Your task to perform on an android device: toggle translation in the chrome app Image 0: 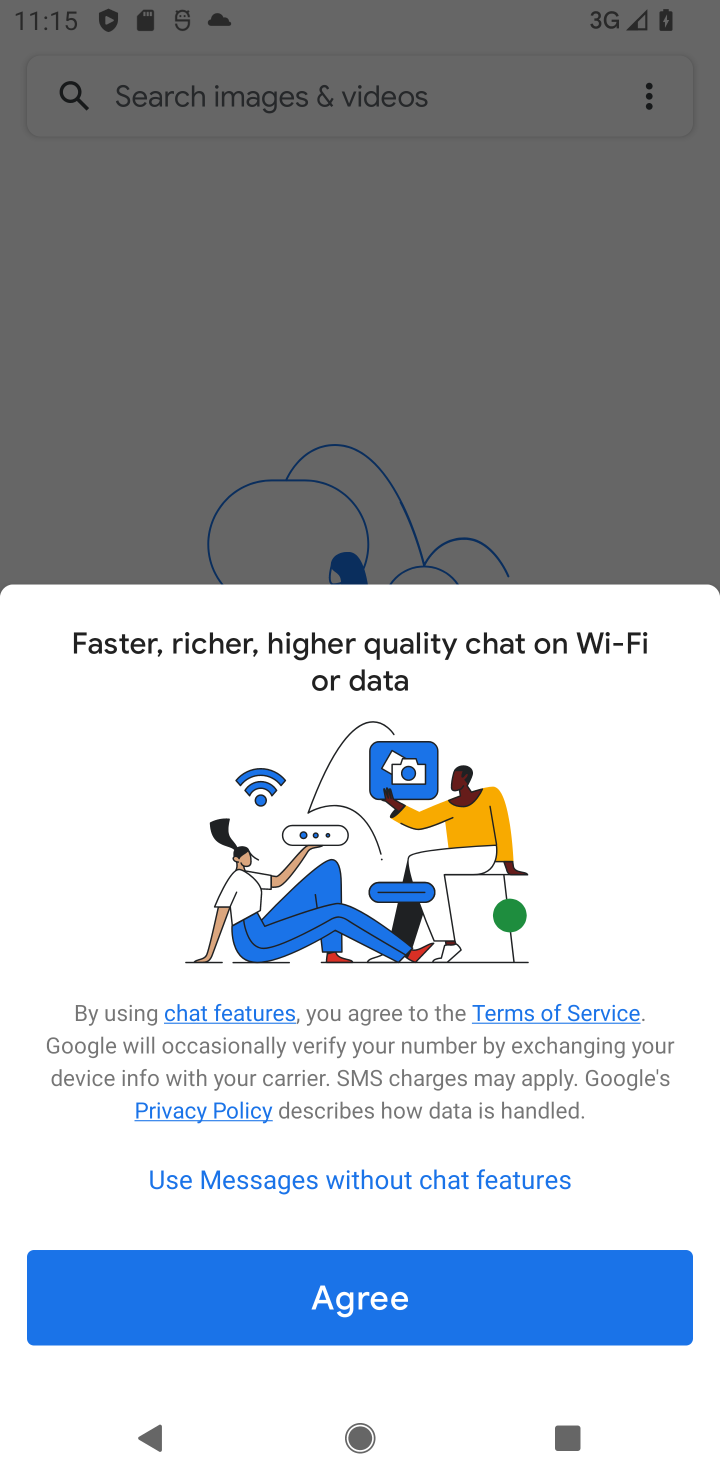
Step 0: press home button
Your task to perform on an android device: toggle translation in the chrome app Image 1: 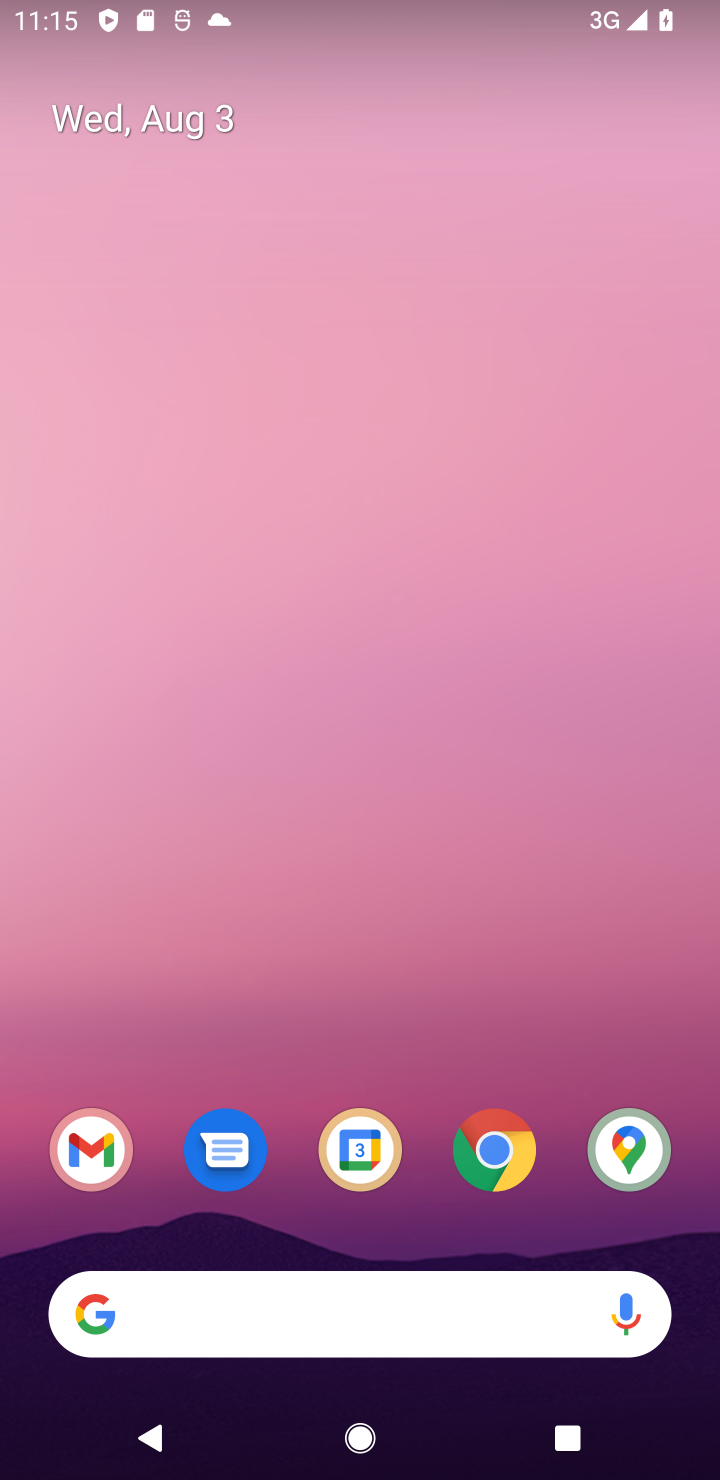
Step 1: drag from (557, 999) to (557, 331)
Your task to perform on an android device: toggle translation in the chrome app Image 2: 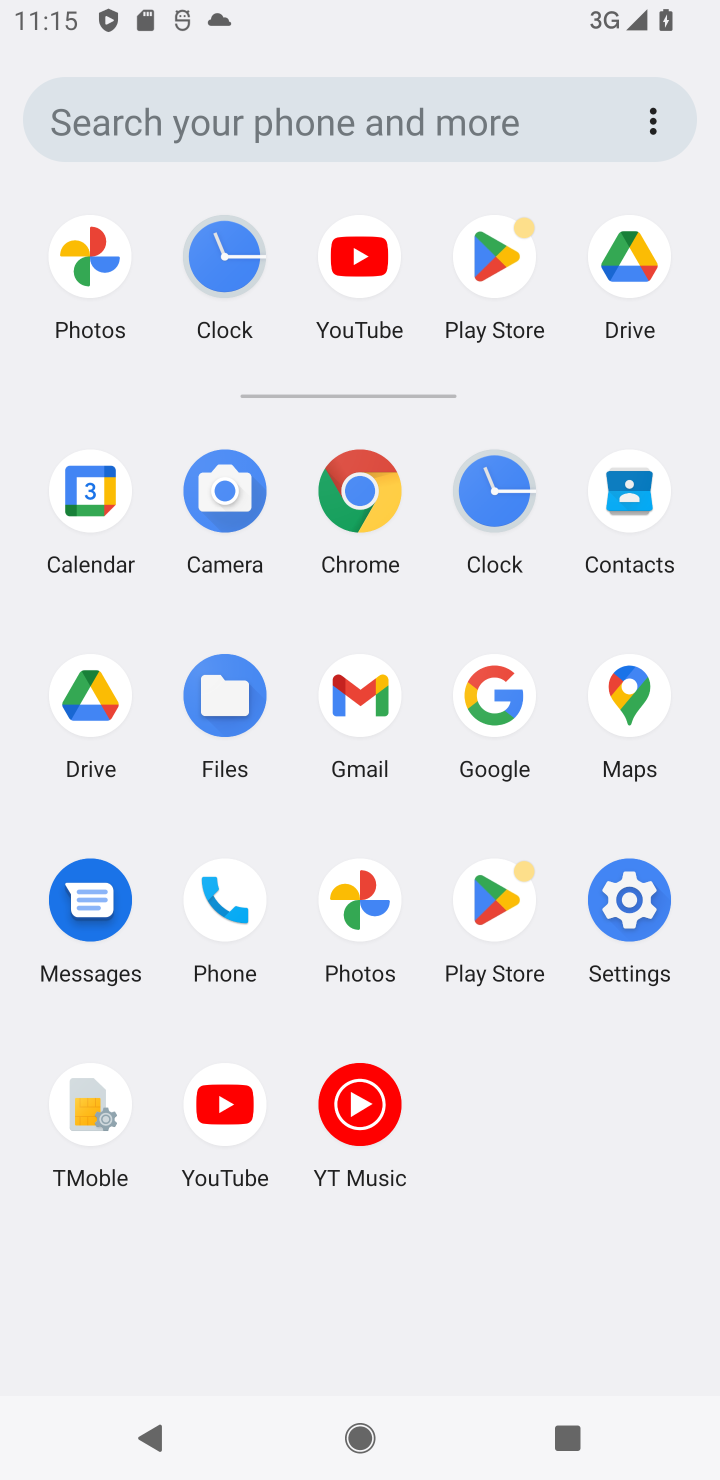
Step 2: click (363, 483)
Your task to perform on an android device: toggle translation in the chrome app Image 3: 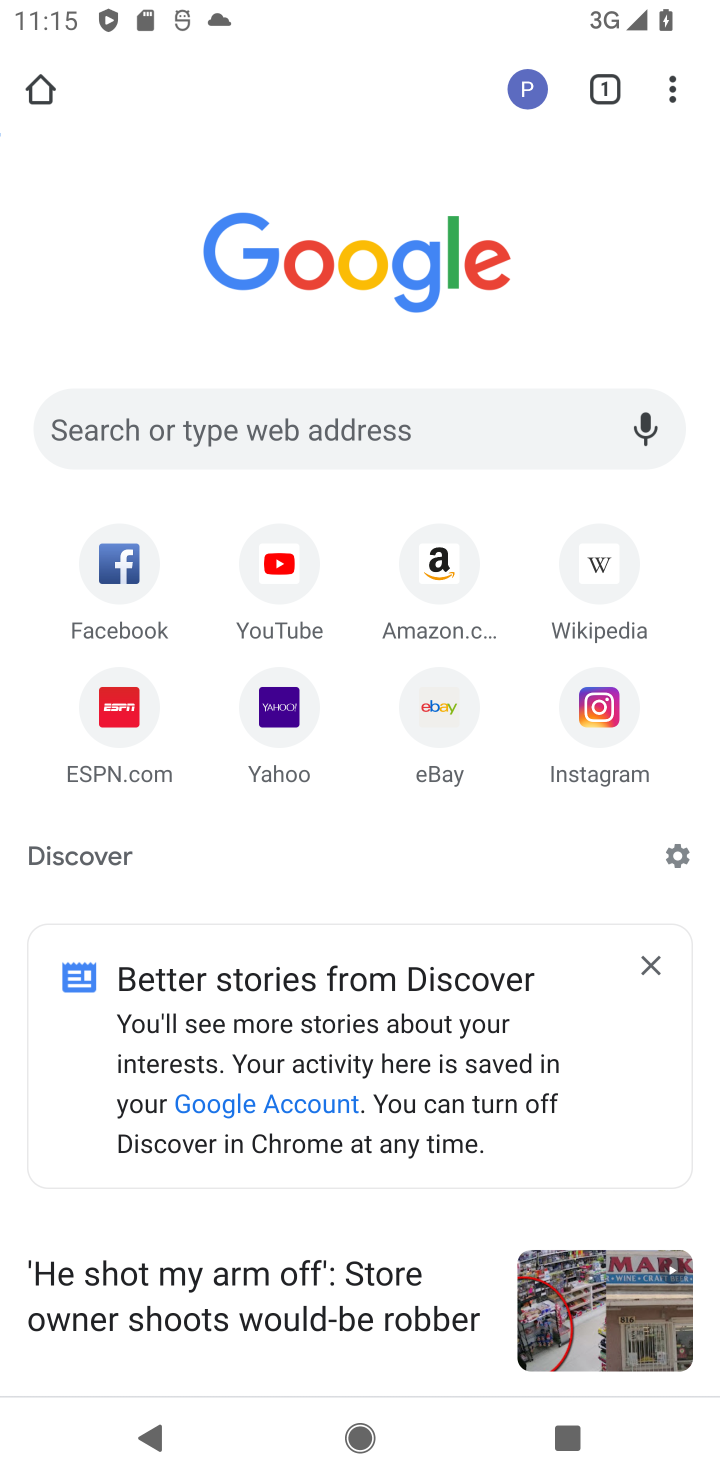
Step 3: click (673, 88)
Your task to perform on an android device: toggle translation in the chrome app Image 4: 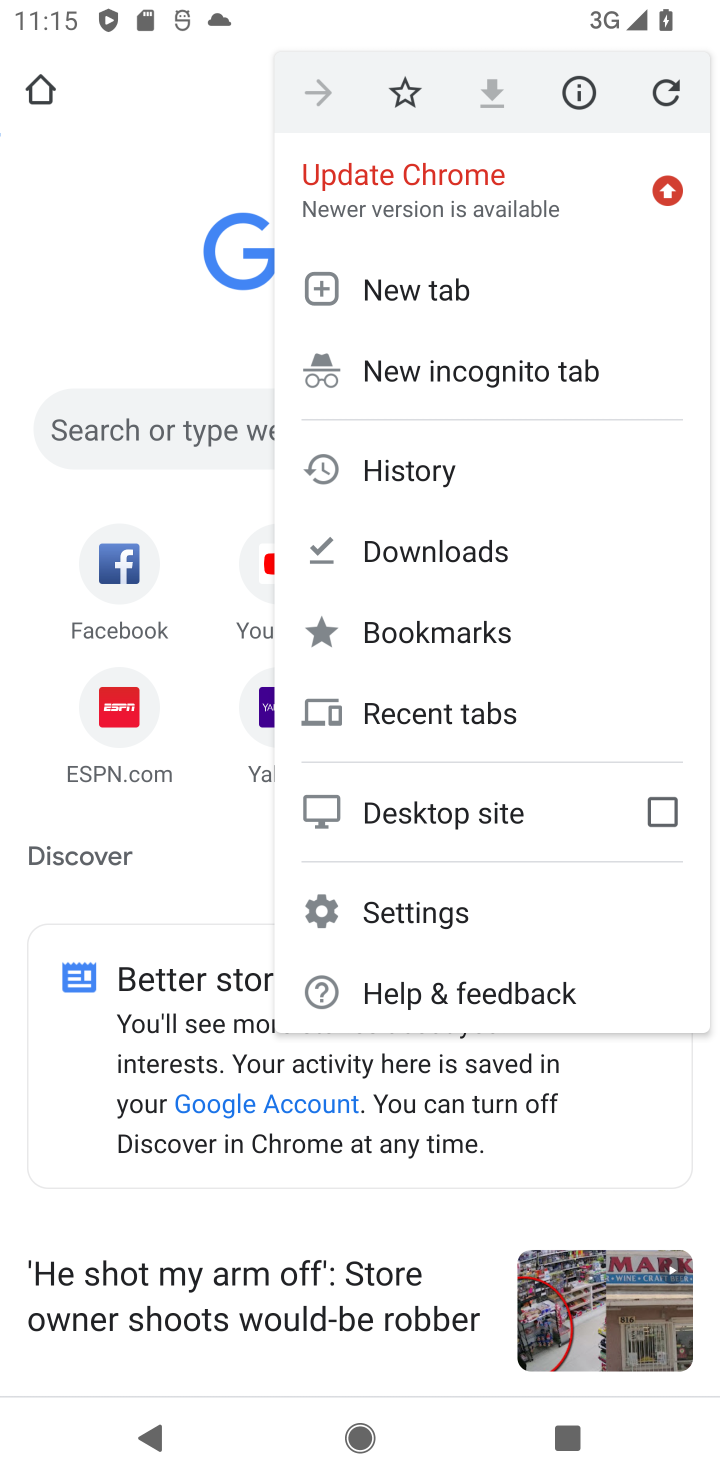
Step 4: click (523, 919)
Your task to perform on an android device: toggle translation in the chrome app Image 5: 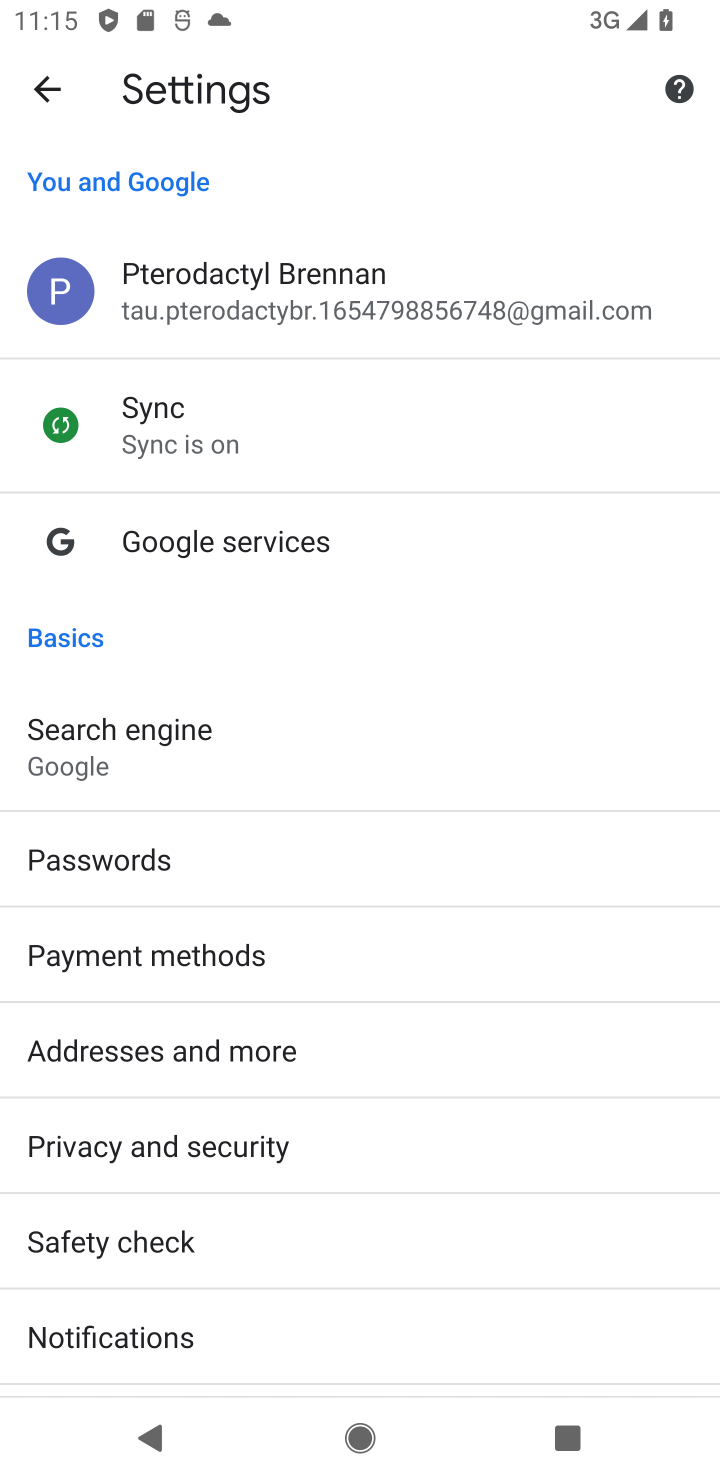
Step 5: drag from (540, 1040) to (560, 822)
Your task to perform on an android device: toggle translation in the chrome app Image 6: 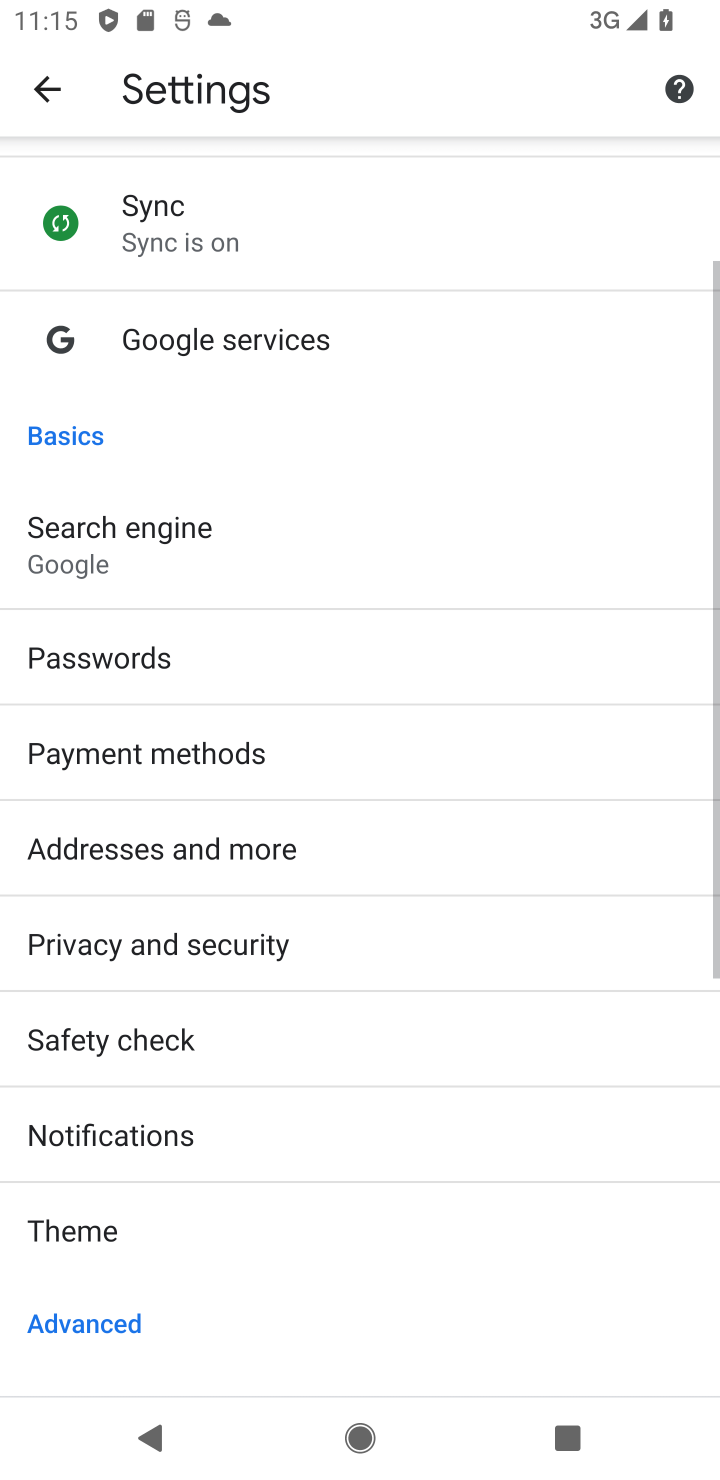
Step 6: drag from (559, 1031) to (566, 817)
Your task to perform on an android device: toggle translation in the chrome app Image 7: 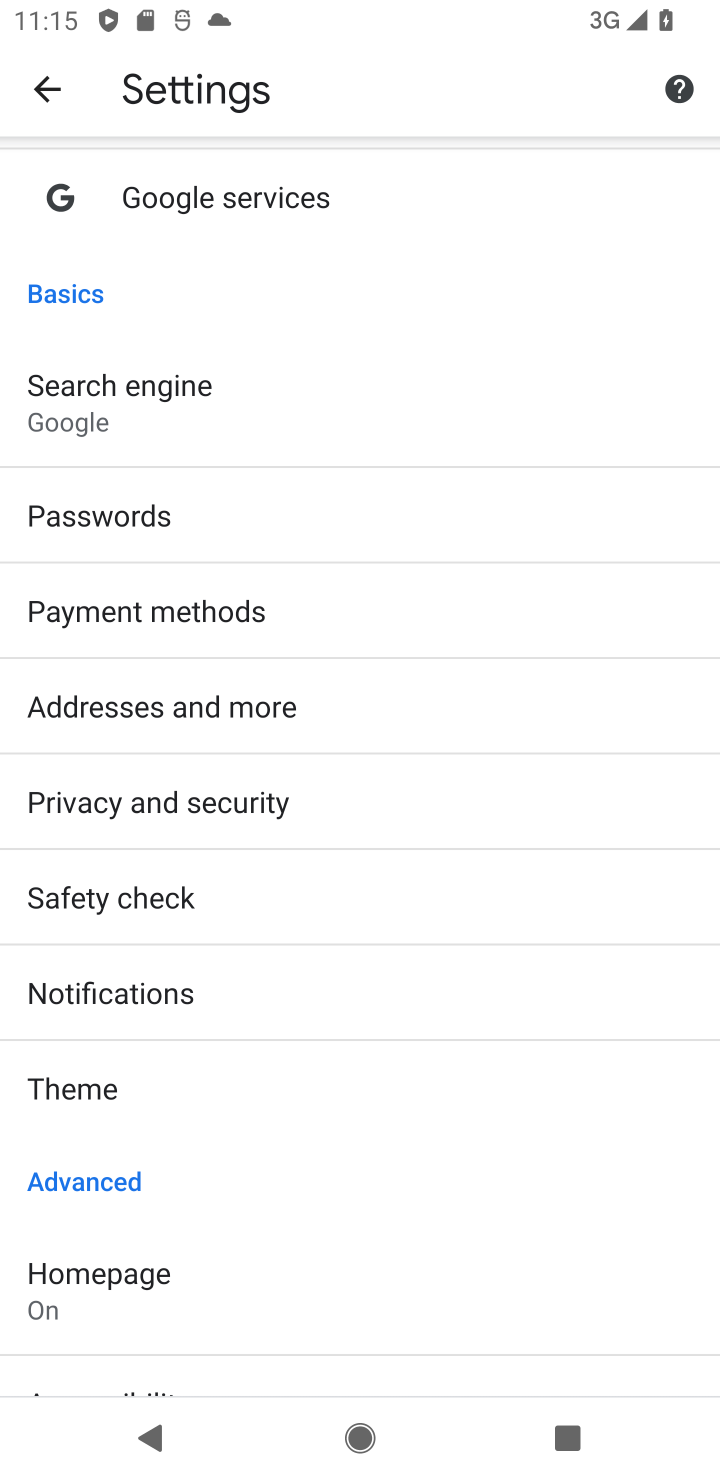
Step 7: drag from (535, 1078) to (541, 853)
Your task to perform on an android device: toggle translation in the chrome app Image 8: 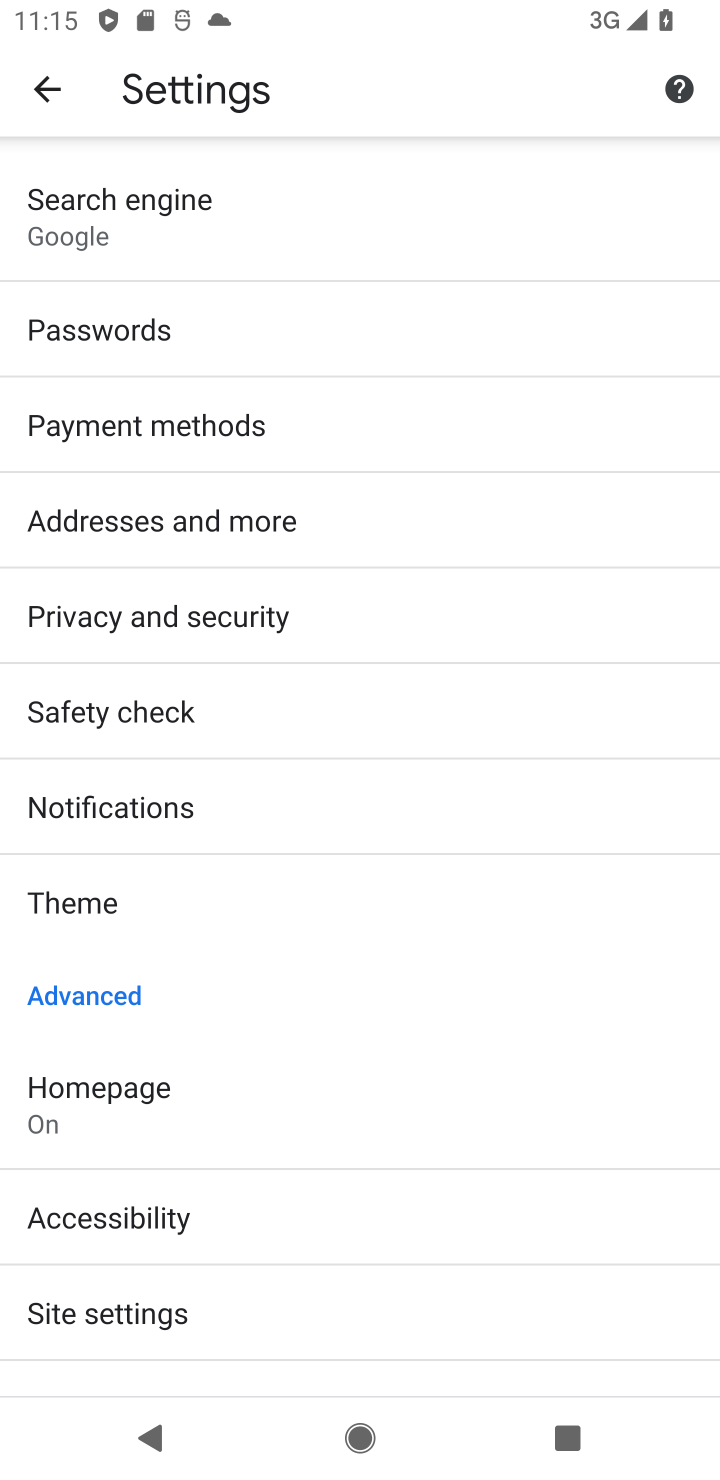
Step 8: drag from (515, 1084) to (533, 851)
Your task to perform on an android device: toggle translation in the chrome app Image 9: 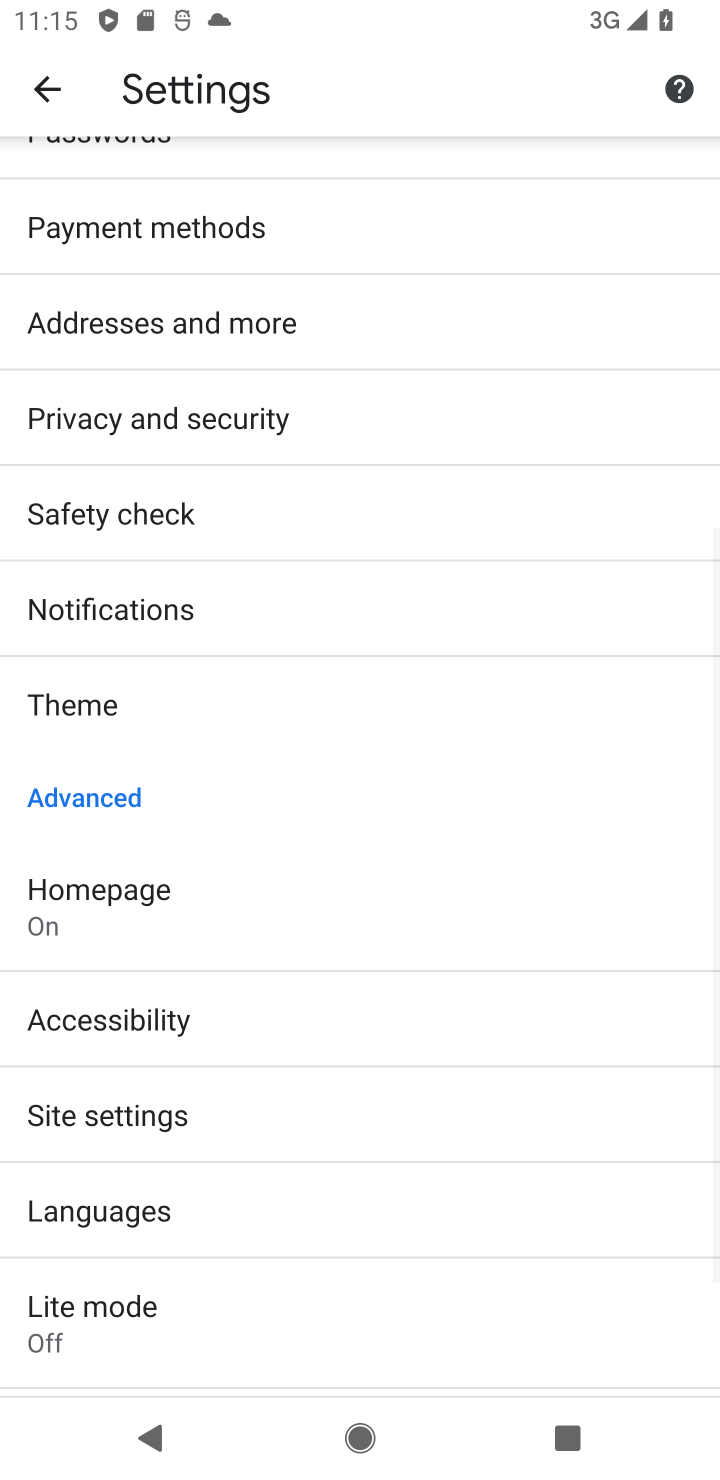
Step 9: drag from (492, 1156) to (542, 843)
Your task to perform on an android device: toggle translation in the chrome app Image 10: 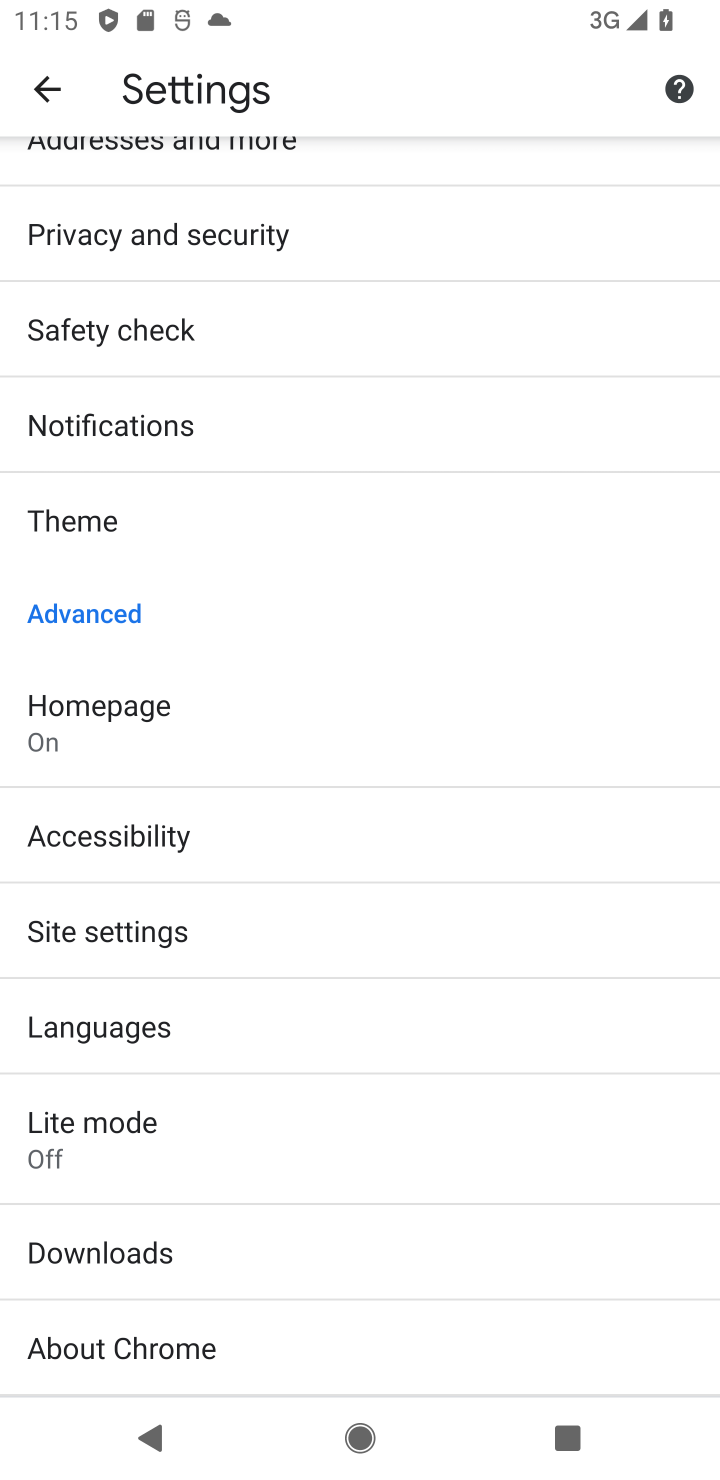
Step 10: drag from (512, 1087) to (530, 803)
Your task to perform on an android device: toggle translation in the chrome app Image 11: 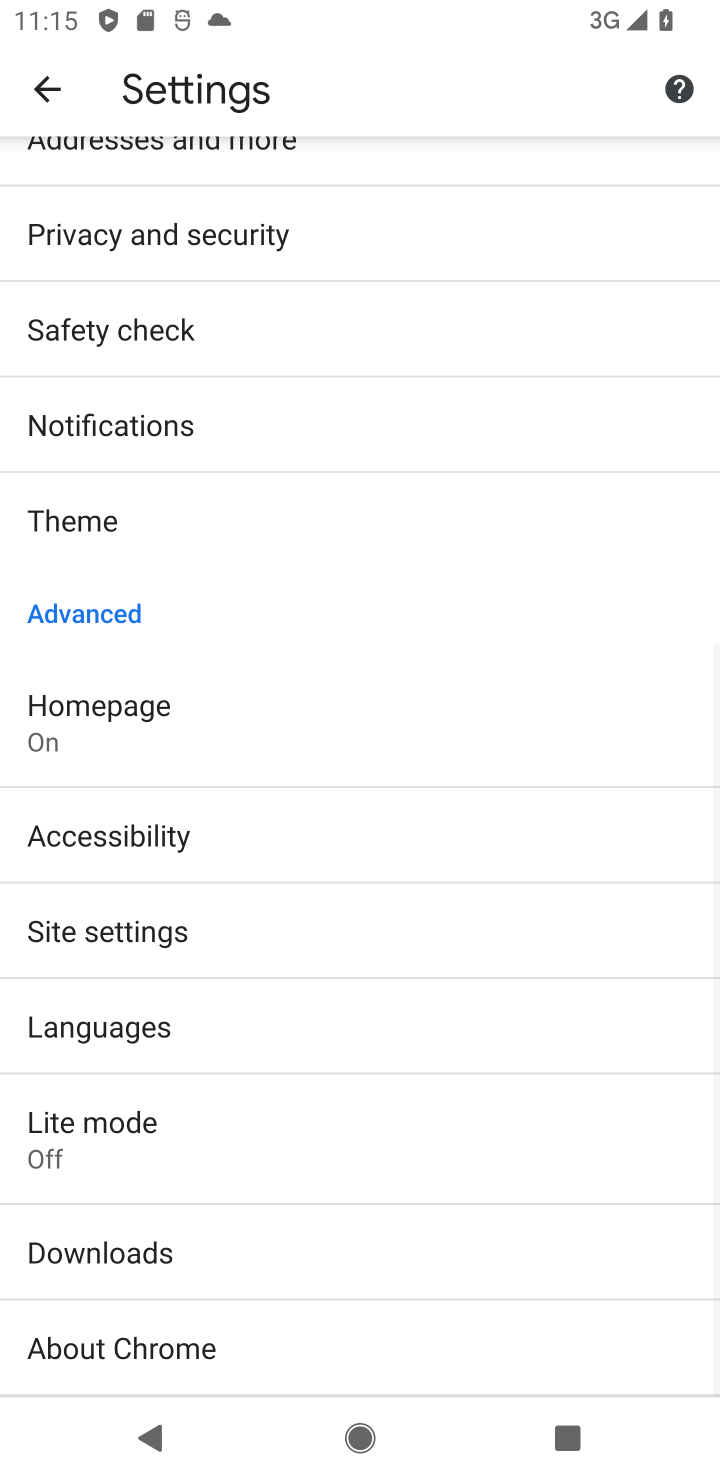
Step 11: click (520, 1019)
Your task to perform on an android device: toggle translation in the chrome app Image 12: 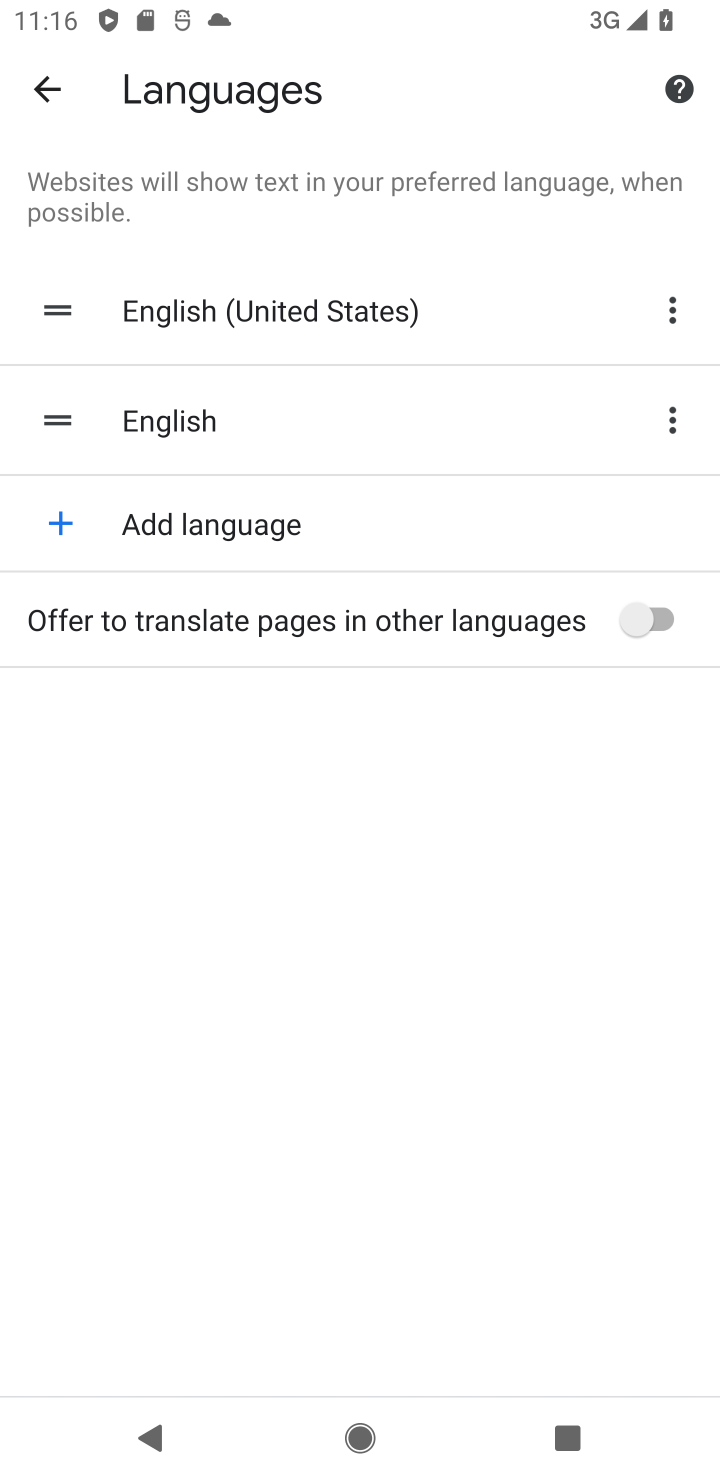
Step 12: click (643, 612)
Your task to perform on an android device: toggle translation in the chrome app Image 13: 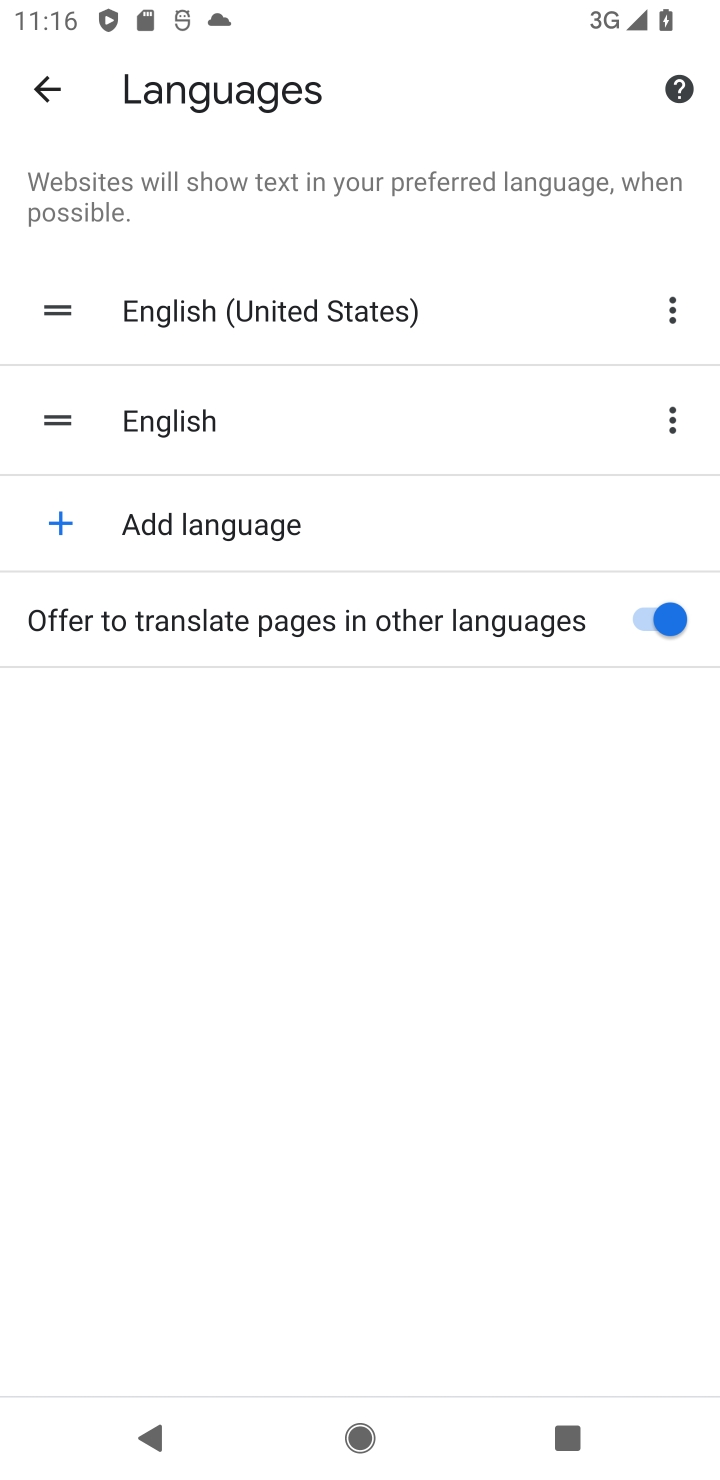
Step 13: task complete